Your task to perform on an android device: move an email to a new category in the gmail app Image 0: 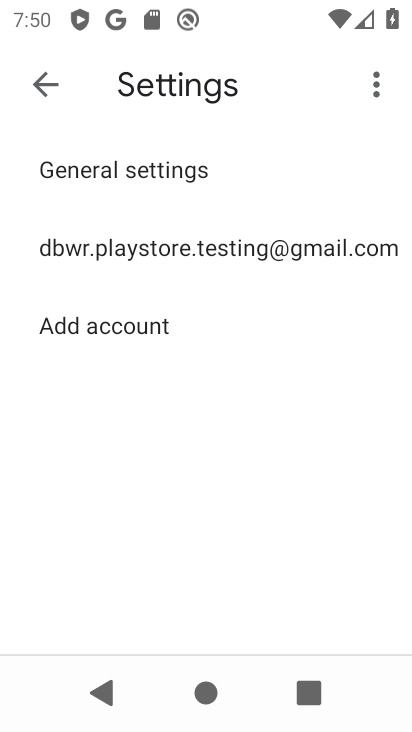
Step 0: press home button
Your task to perform on an android device: move an email to a new category in the gmail app Image 1: 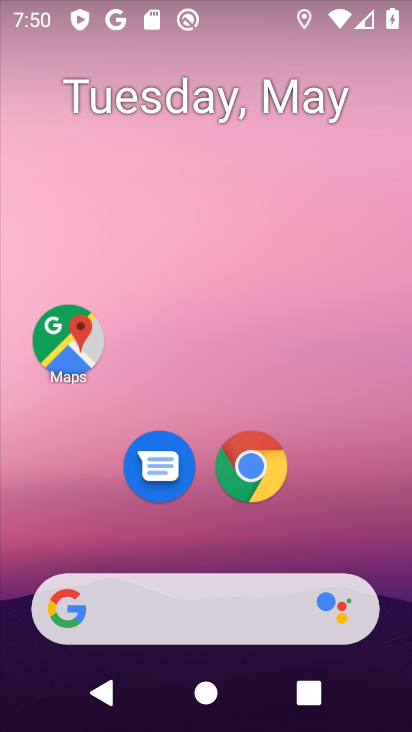
Step 1: drag from (157, 564) to (199, 179)
Your task to perform on an android device: move an email to a new category in the gmail app Image 2: 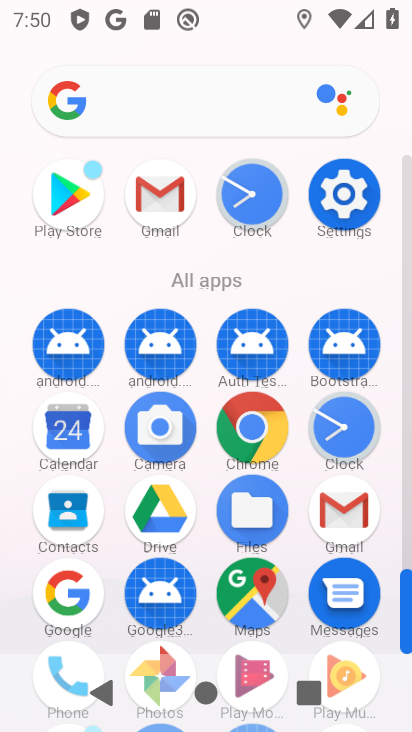
Step 2: click (141, 181)
Your task to perform on an android device: move an email to a new category in the gmail app Image 3: 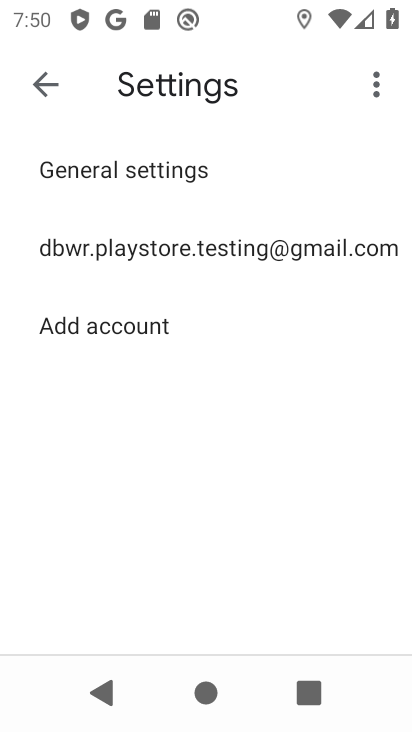
Step 3: click (50, 96)
Your task to perform on an android device: move an email to a new category in the gmail app Image 4: 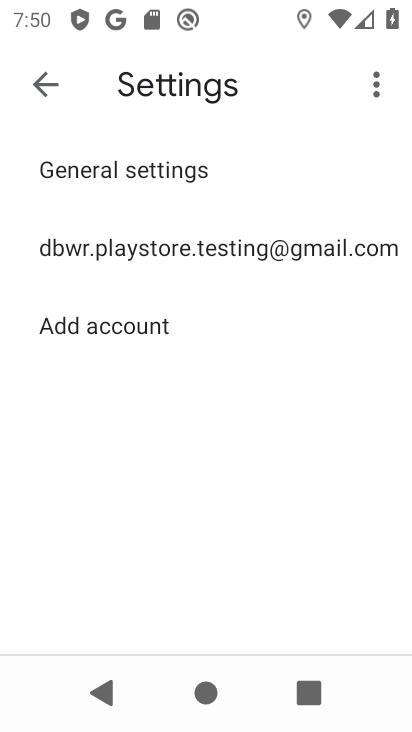
Step 4: click (48, 77)
Your task to perform on an android device: move an email to a new category in the gmail app Image 5: 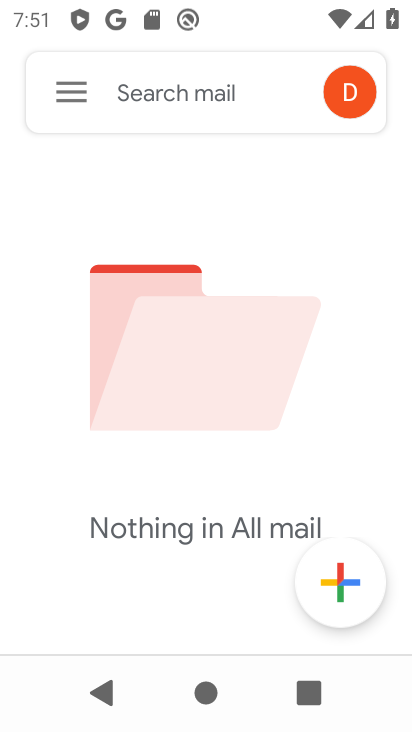
Step 5: task complete